Your task to perform on an android device: turn on improve location accuracy Image 0: 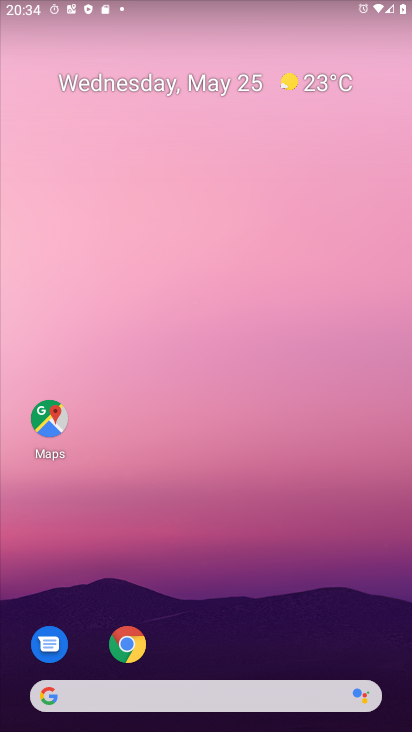
Step 0: drag from (310, 686) to (210, 2)
Your task to perform on an android device: turn on improve location accuracy Image 1: 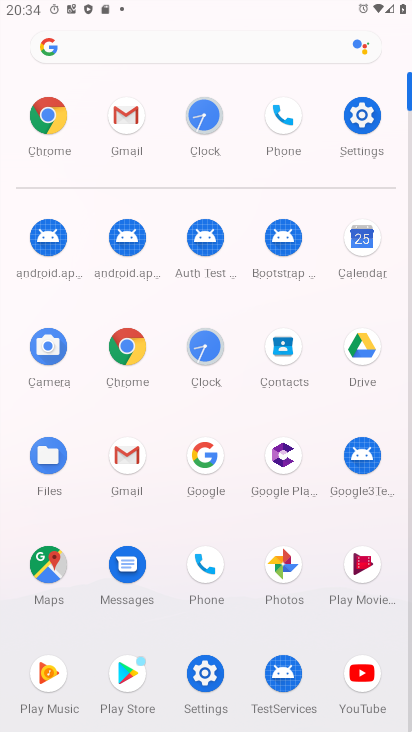
Step 1: click (371, 117)
Your task to perform on an android device: turn on improve location accuracy Image 2: 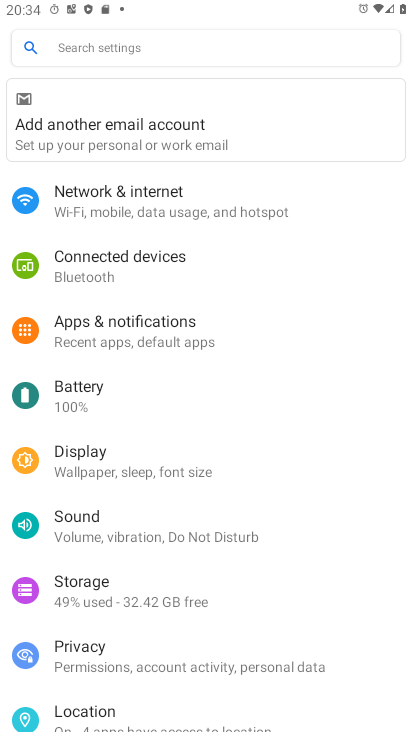
Step 2: click (131, 713)
Your task to perform on an android device: turn on improve location accuracy Image 3: 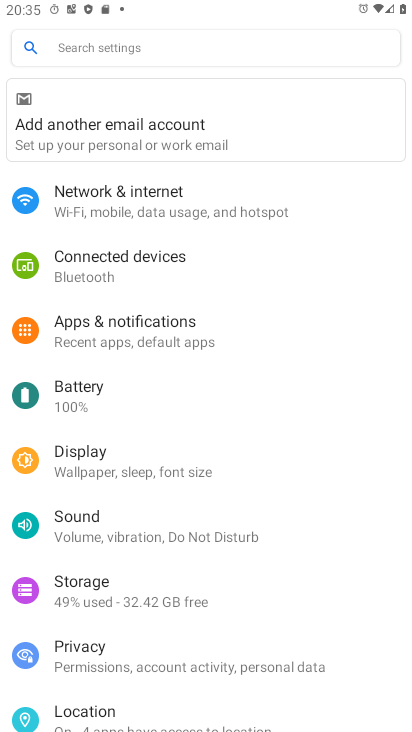
Step 3: click (93, 707)
Your task to perform on an android device: turn on improve location accuracy Image 4: 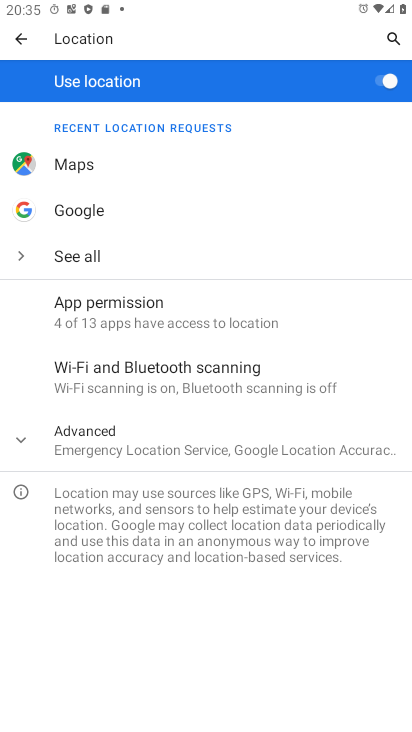
Step 4: click (74, 443)
Your task to perform on an android device: turn on improve location accuracy Image 5: 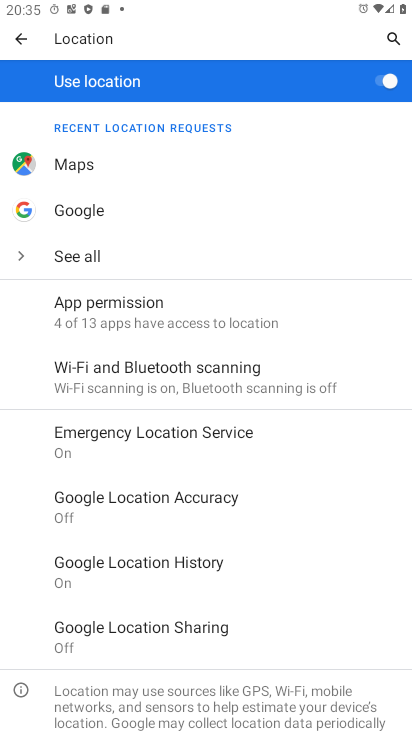
Step 5: click (197, 512)
Your task to perform on an android device: turn on improve location accuracy Image 6: 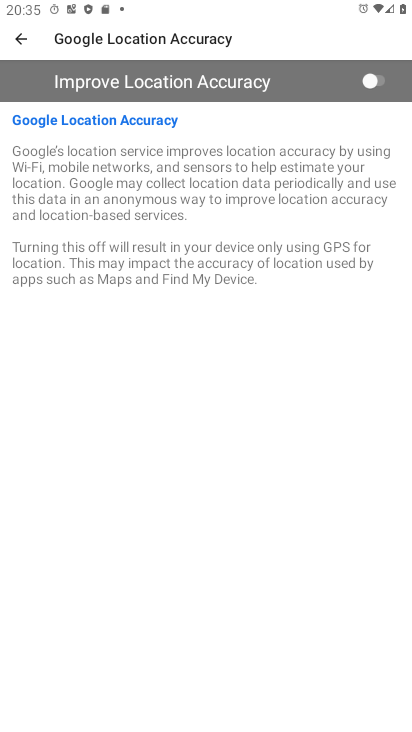
Step 6: click (376, 81)
Your task to perform on an android device: turn on improve location accuracy Image 7: 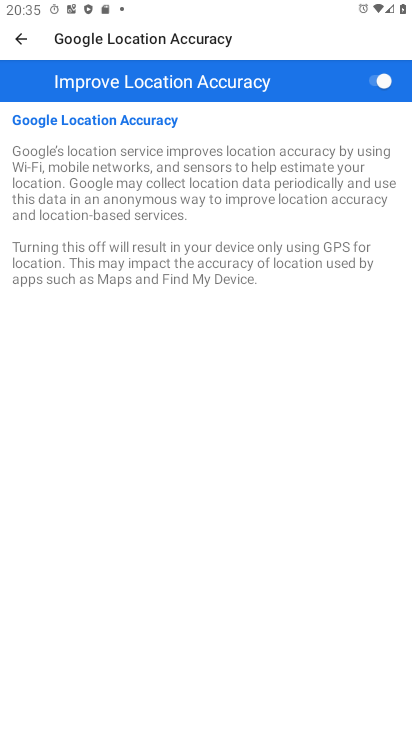
Step 7: task complete